Your task to perform on an android device: turn off priority inbox in the gmail app Image 0: 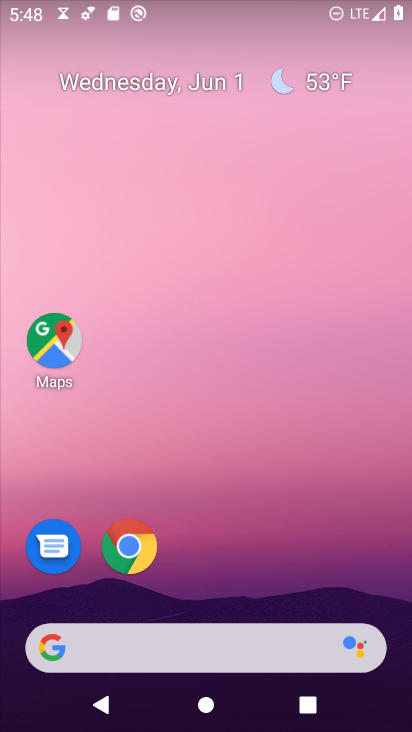
Step 0: drag from (286, 546) to (225, 13)
Your task to perform on an android device: turn off priority inbox in the gmail app Image 1: 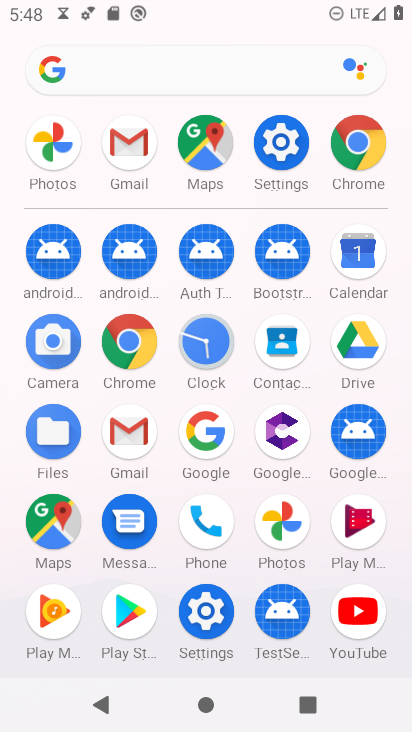
Step 1: drag from (6, 446) to (11, 237)
Your task to perform on an android device: turn off priority inbox in the gmail app Image 2: 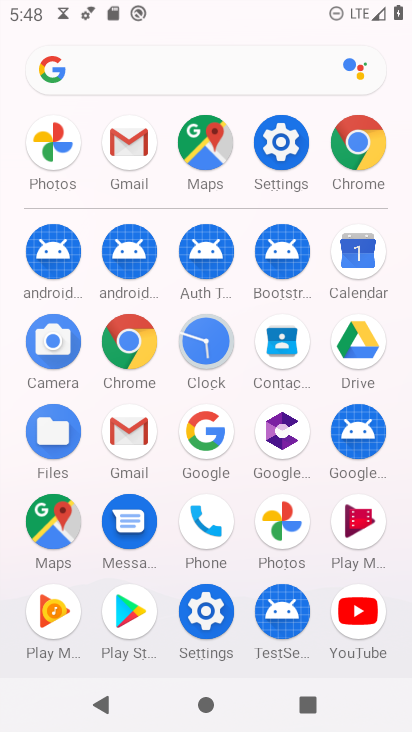
Step 2: click (131, 425)
Your task to perform on an android device: turn off priority inbox in the gmail app Image 3: 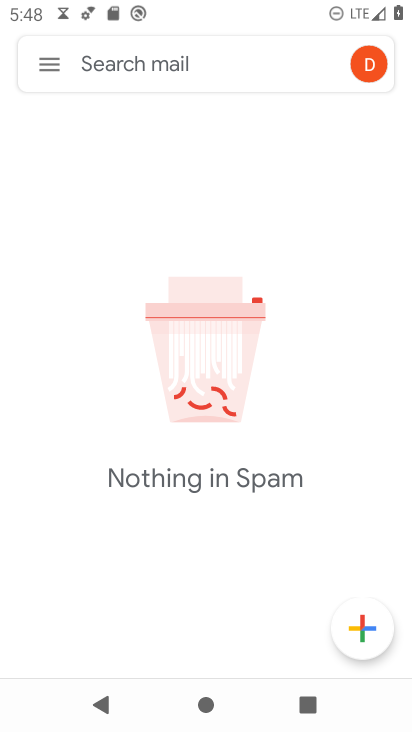
Step 3: click (52, 60)
Your task to perform on an android device: turn off priority inbox in the gmail app Image 4: 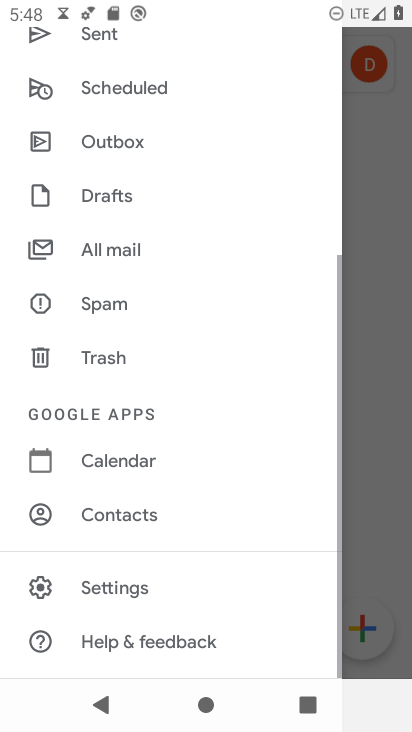
Step 4: drag from (124, 578) to (192, 44)
Your task to perform on an android device: turn off priority inbox in the gmail app Image 5: 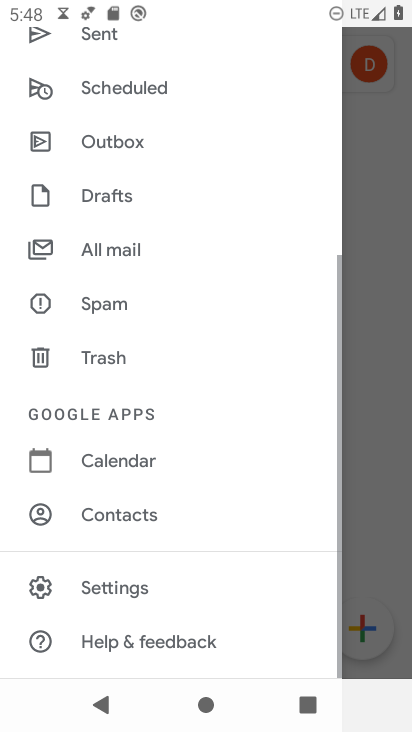
Step 5: click (114, 581)
Your task to perform on an android device: turn off priority inbox in the gmail app Image 6: 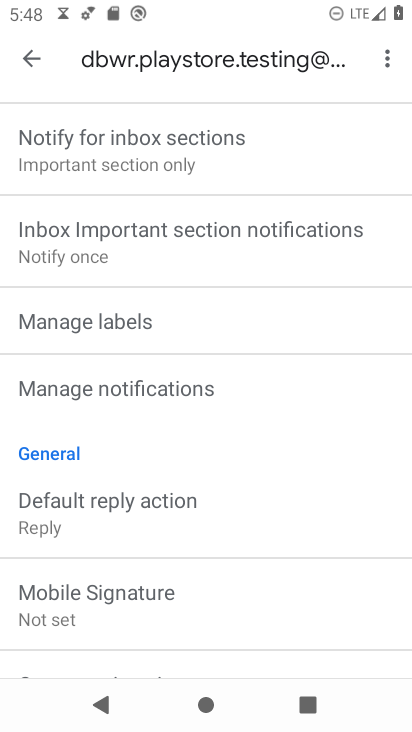
Step 6: drag from (218, 142) to (251, 622)
Your task to perform on an android device: turn off priority inbox in the gmail app Image 7: 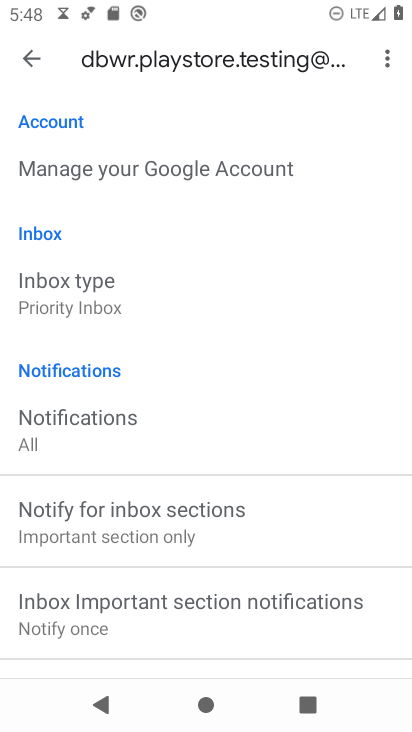
Step 7: click (136, 278)
Your task to perform on an android device: turn off priority inbox in the gmail app Image 8: 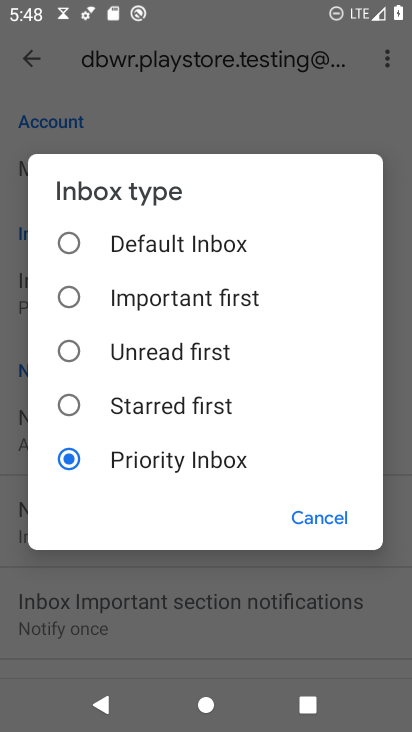
Step 8: click (181, 232)
Your task to perform on an android device: turn off priority inbox in the gmail app Image 9: 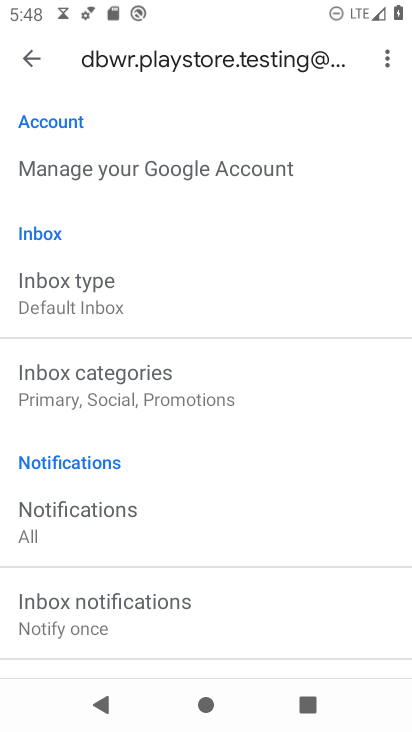
Step 9: task complete